Your task to perform on an android device: Open the web browser Image 0: 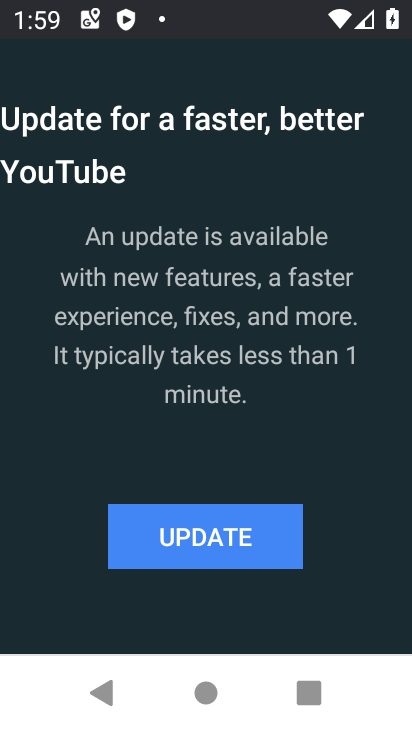
Step 0: press back button
Your task to perform on an android device: Open the web browser Image 1: 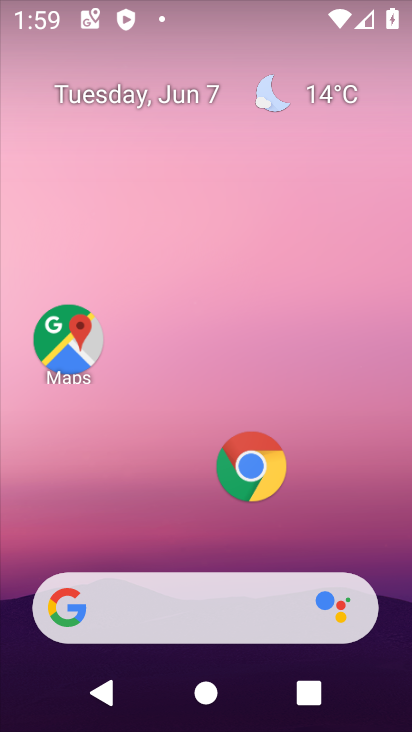
Step 1: drag from (255, 483) to (321, 483)
Your task to perform on an android device: Open the web browser Image 2: 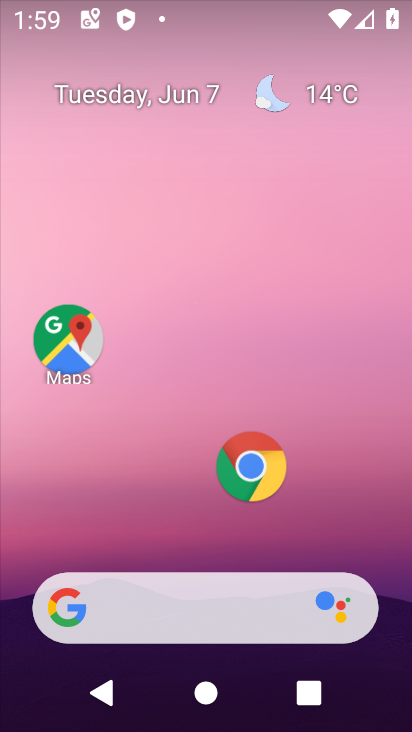
Step 2: click (247, 469)
Your task to perform on an android device: Open the web browser Image 3: 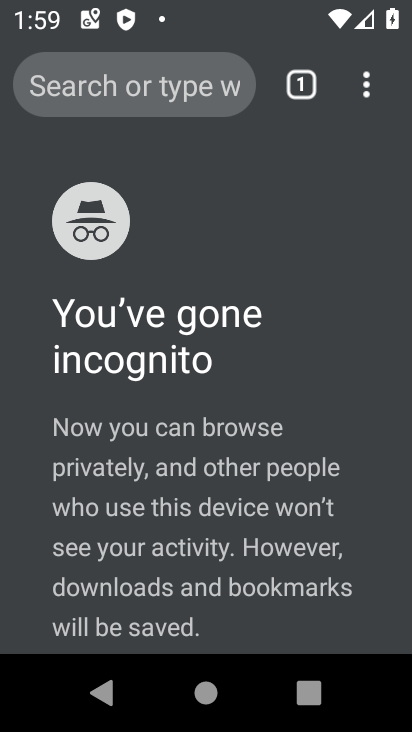
Step 3: click (305, 86)
Your task to perform on an android device: Open the web browser Image 4: 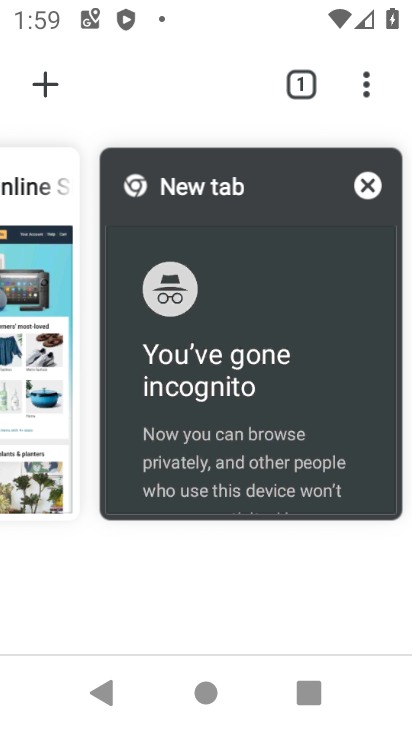
Step 4: click (364, 188)
Your task to perform on an android device: Open the web browser Image 5: 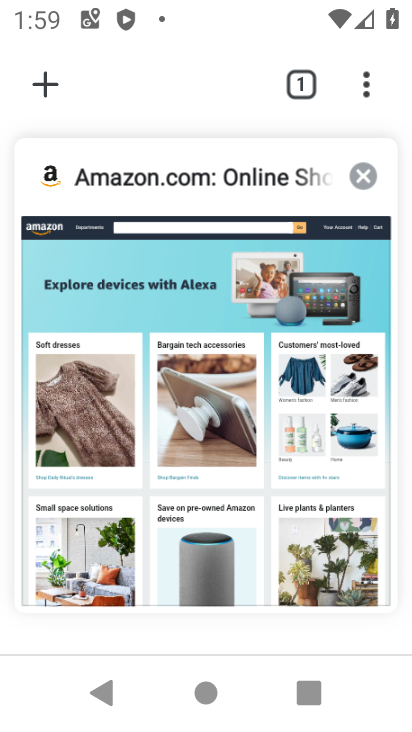
Step 5: click (324, 184)
Your task to perform on an android device: Open the web browser Image 6: 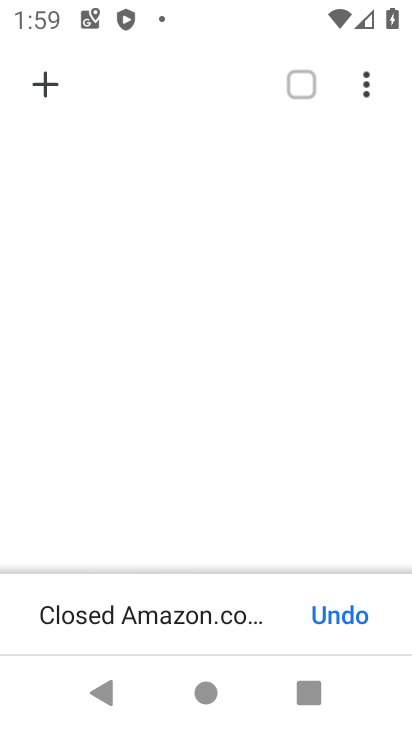
Step 6: click (50, 90)
Your task to perform on an android device: Open the web browser Image 7: 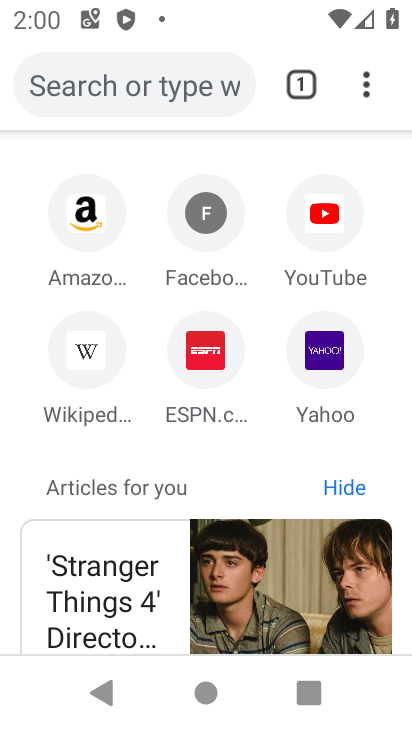
Step 7: task complete